Your task to perform on an android device: Open ESPN.com Image 0: 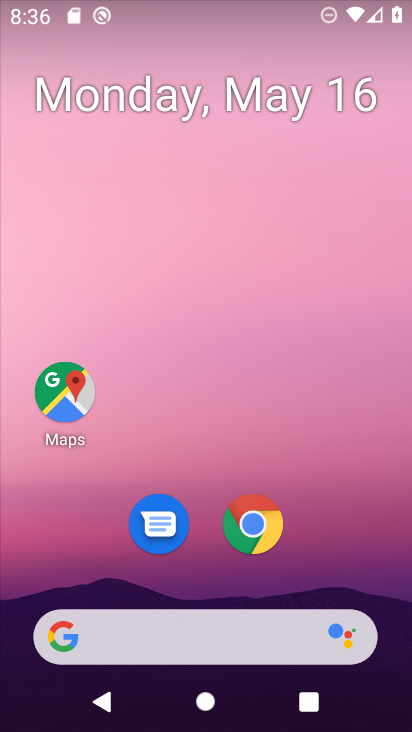
Step 0: click (239, 641)
Your task to perform on an android device: Open ESPN.com Image 1: 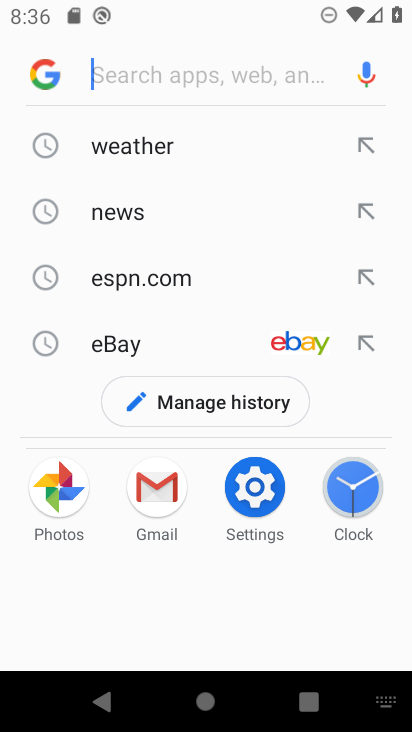
Step 1: click (116, 281)
Your task to perform on an android device: Open ESPN.com Image 2: 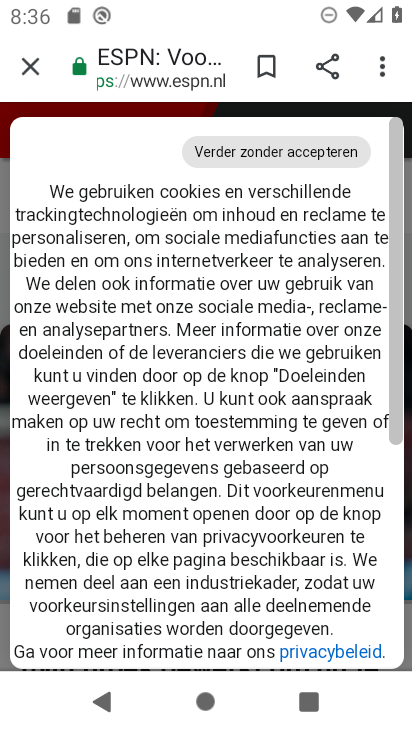
Step 2: task complete